Your task to perform on an android device: What's the weather? Image 0: 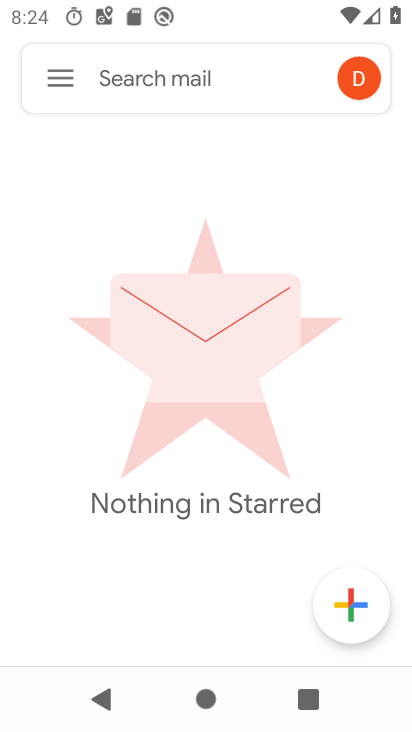
Step 0: press home button
Your task to perform on an android device: What's the weather? Image 1: 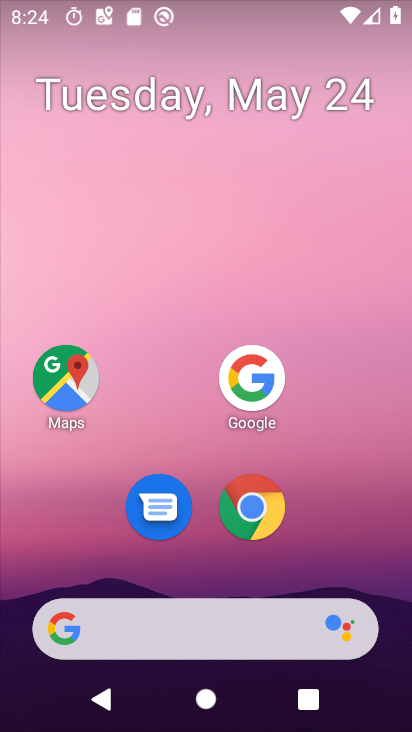
Step 1: click (74, 626)
Your task to perform on an android device: What's the weather? Image 2: 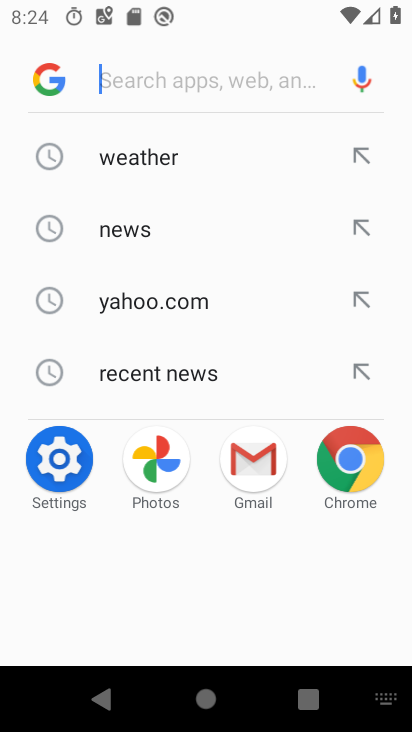
Step 2: click (147, 155)
Your task to perform on an android device: What's the weather? Image 3: 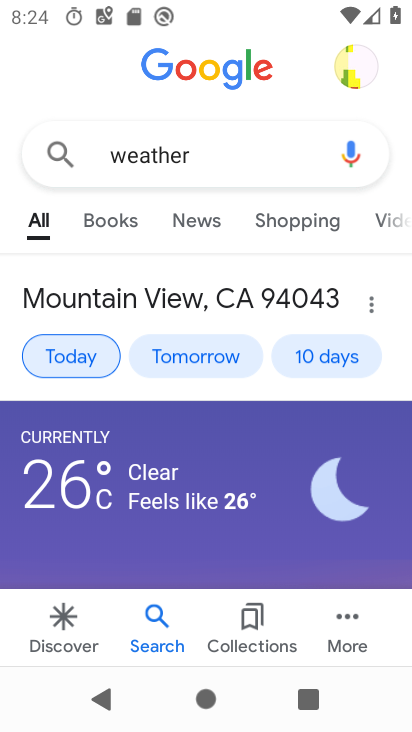
Step 3: task complete